Your task to perform on an android device: Go to wifi settings Image 0: 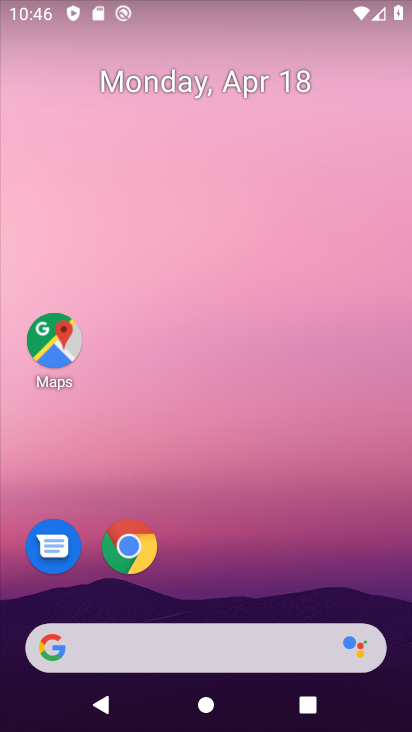
Step 0: drag from (282, 580) to (270, 103)
Your task to perform on an android device: Go to wifi settings Image 1: 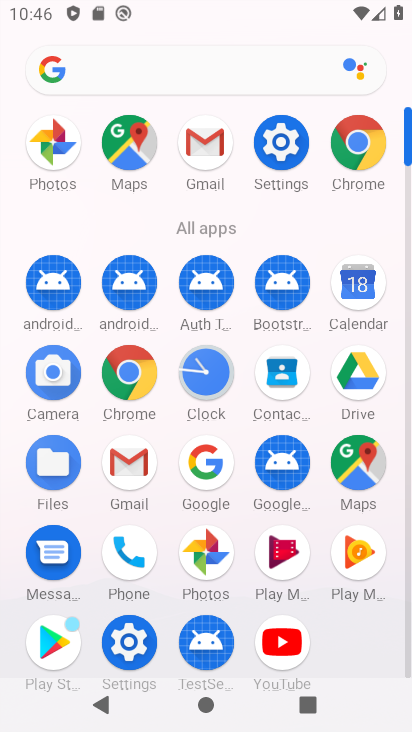
Step 1: click (283, 148)
Your task to perform on an android device: Go to wifi settings Image 2: 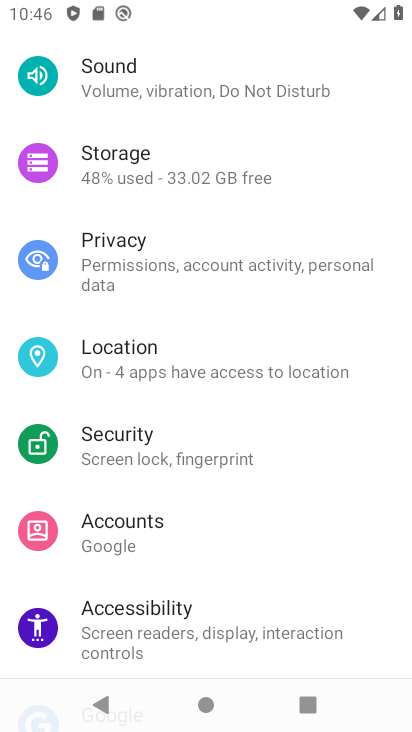
Step 2: drag from (294, 329) to (294, 427)
Your task to perform on an android device: Go to wifi settings Image 3: 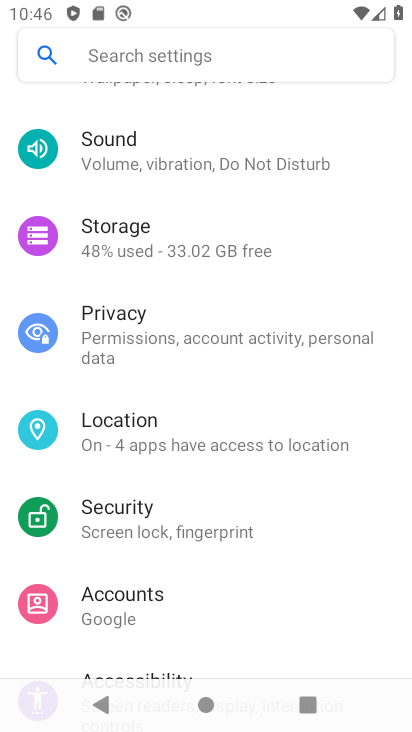
Step 3: drag from (293, 215) to (285, 542)
Your task to perform on an android device: Go to wifi settings Image 4: 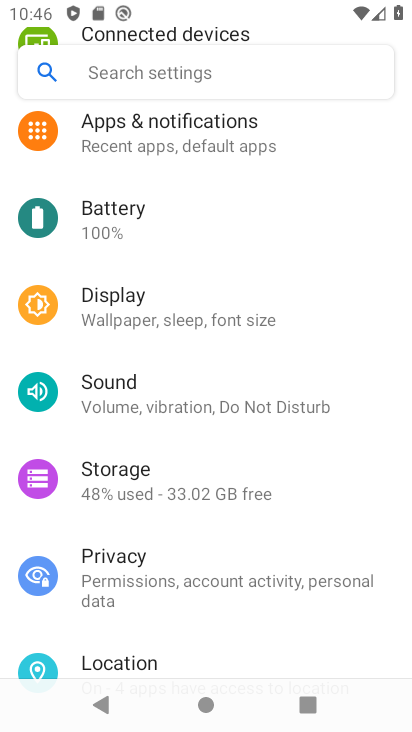
Step 4: drag from (259, 195) to (267, 551)
Your task to perform on an android device: Go to wifi settings Image 5: 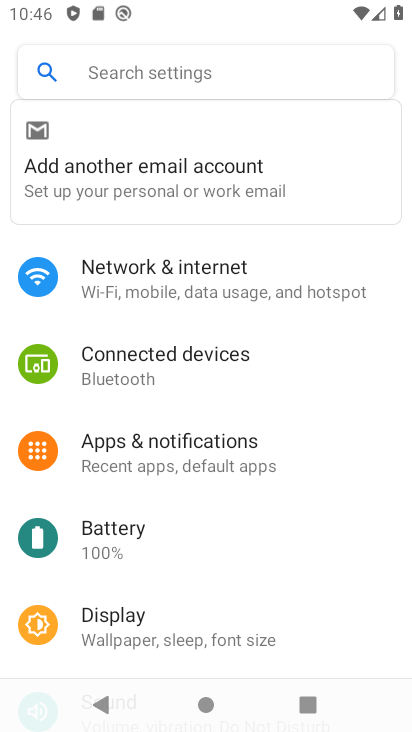
Step 5: click (264, 290)
Your task to perform on an android device: Go to wifi settings Image 6: 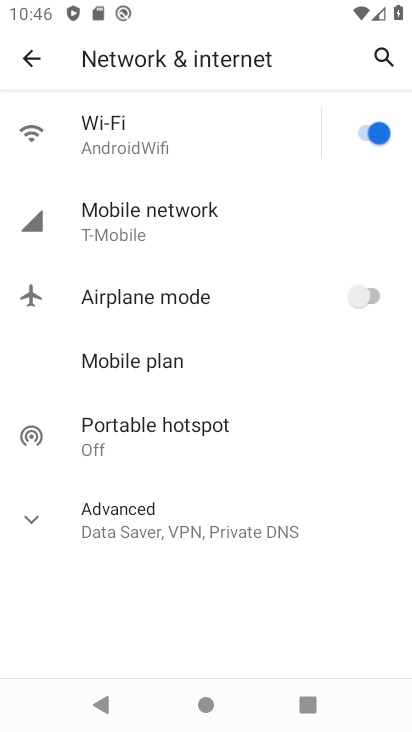
Step 6: click (201, 155)
Your task to perform on an android device: Go to wifi settings Image 7: 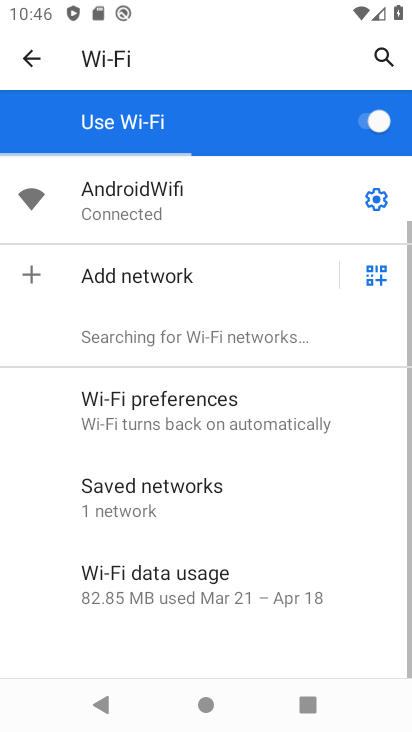
Step 7: task complete